Your task to perform on an android device: open app "File Manager" Image 0: 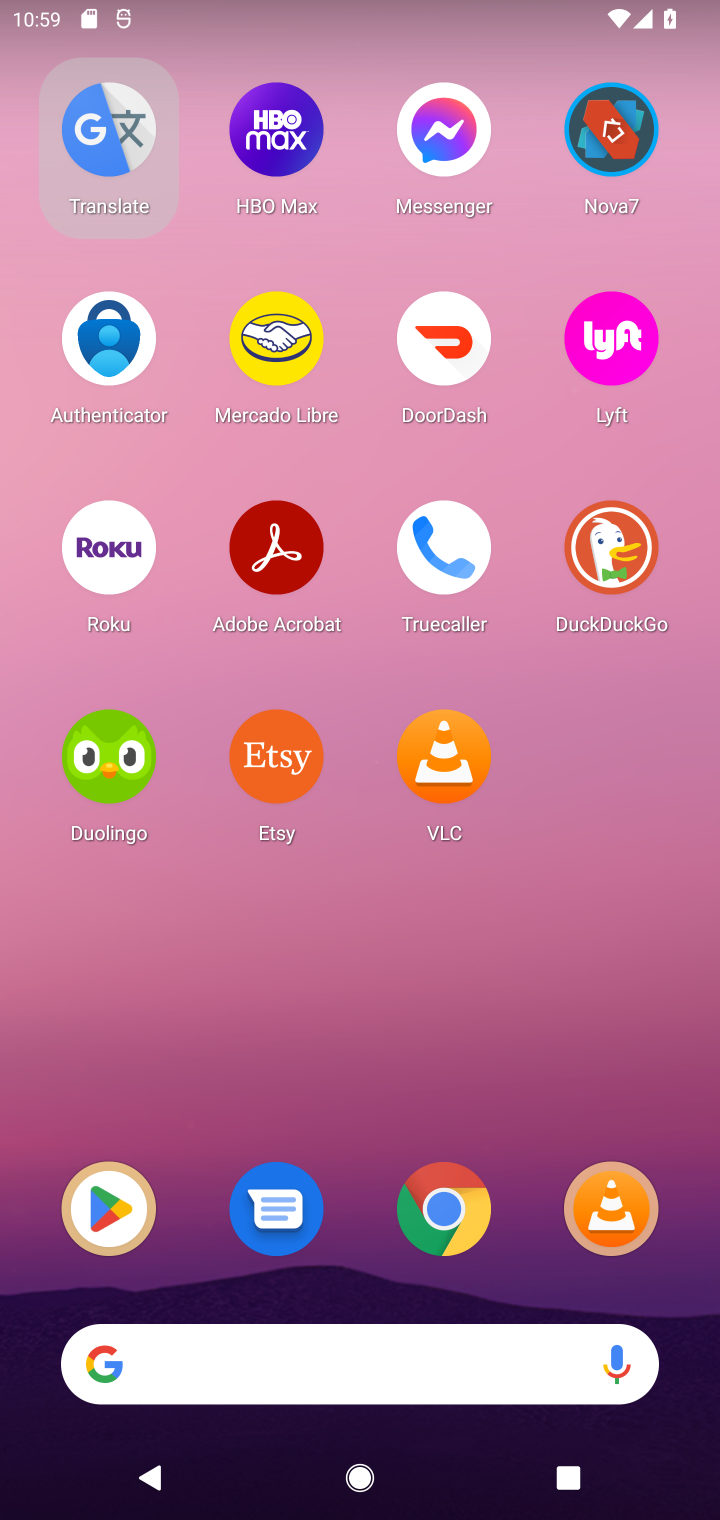
Step 0: drag from (587, 967) to (612, 30)
Your task to perform on an android device: open app "File Manager" Image 1: 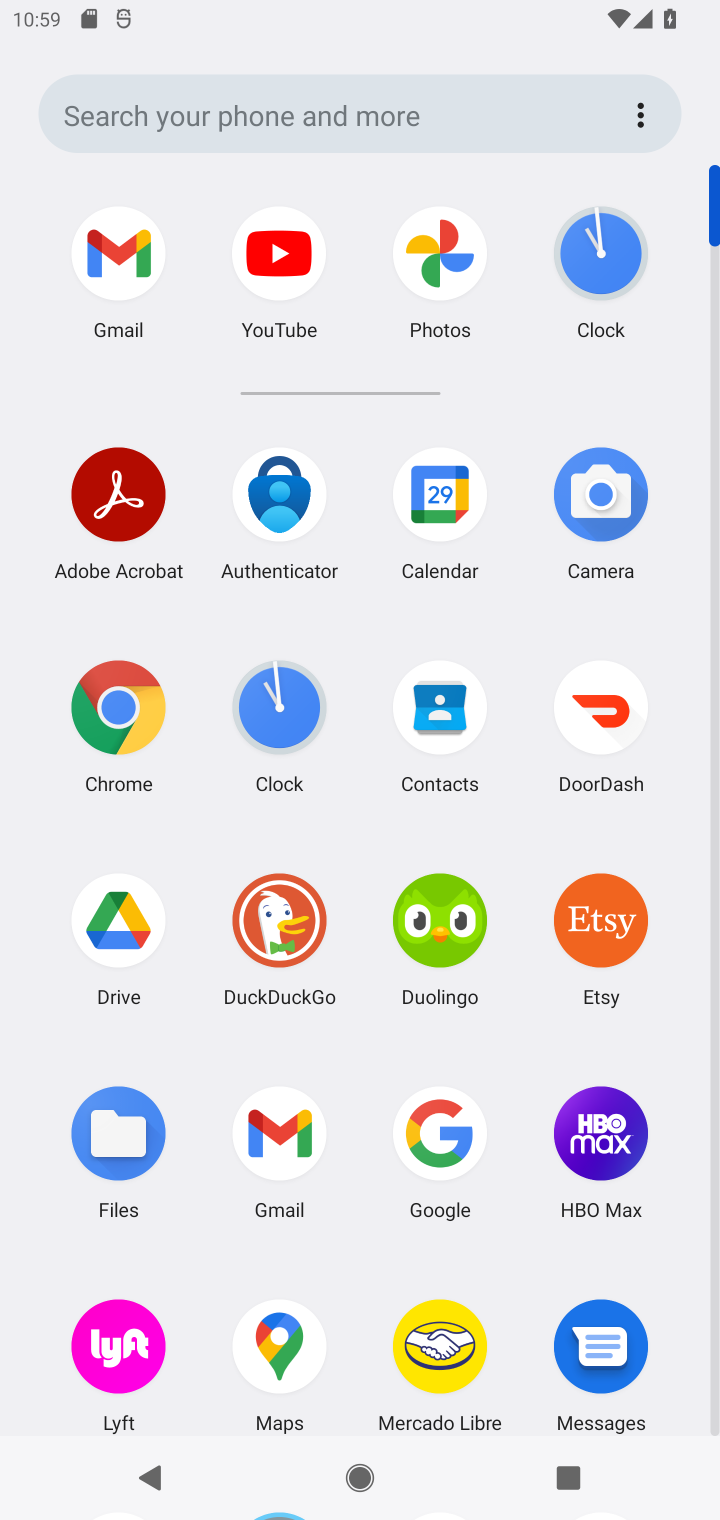
Step 1: drag from (368, 1258) to (433, 413)
Your task to perform on an android device: open app "File Manager" Image 2: 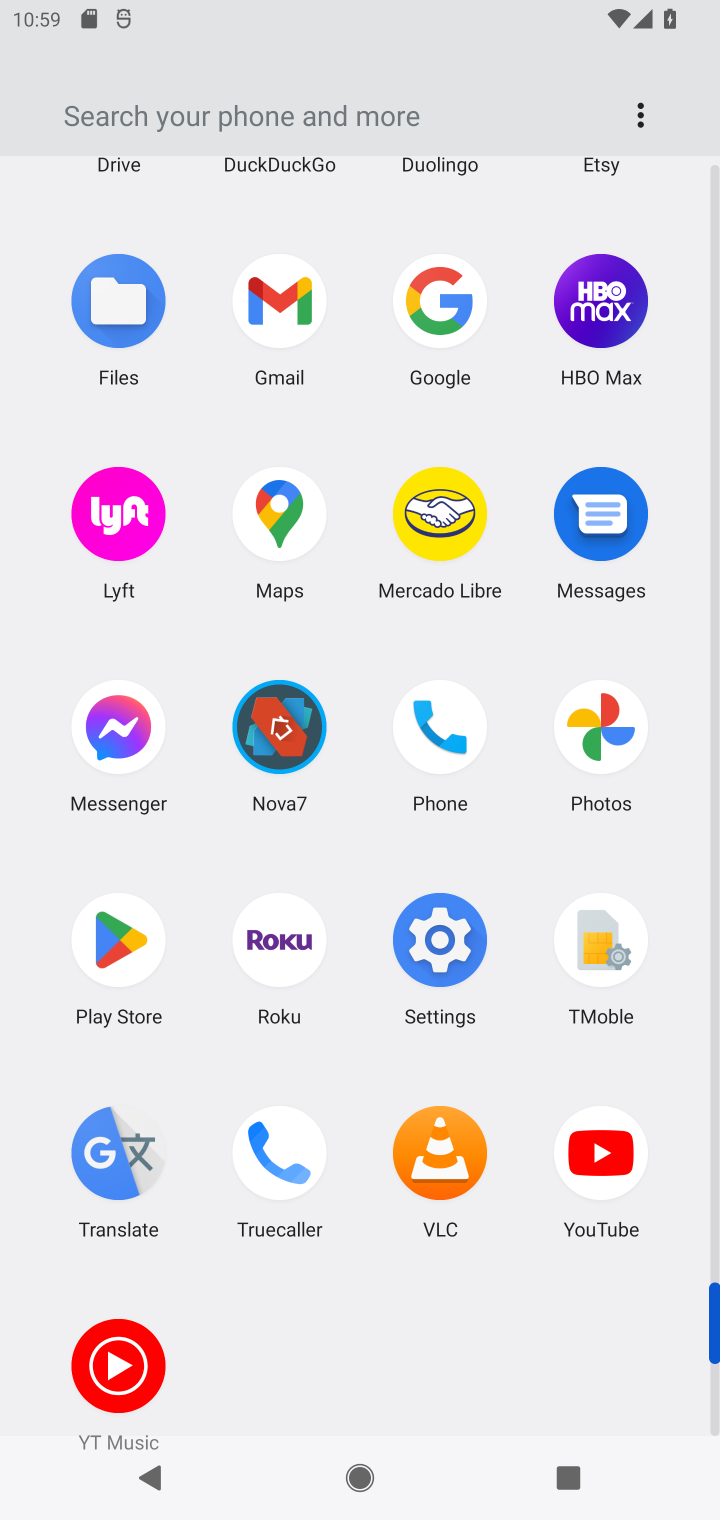
Step 2: click (100, 920)
Your task to perform on an android device: open app "File Manager" Image 3: 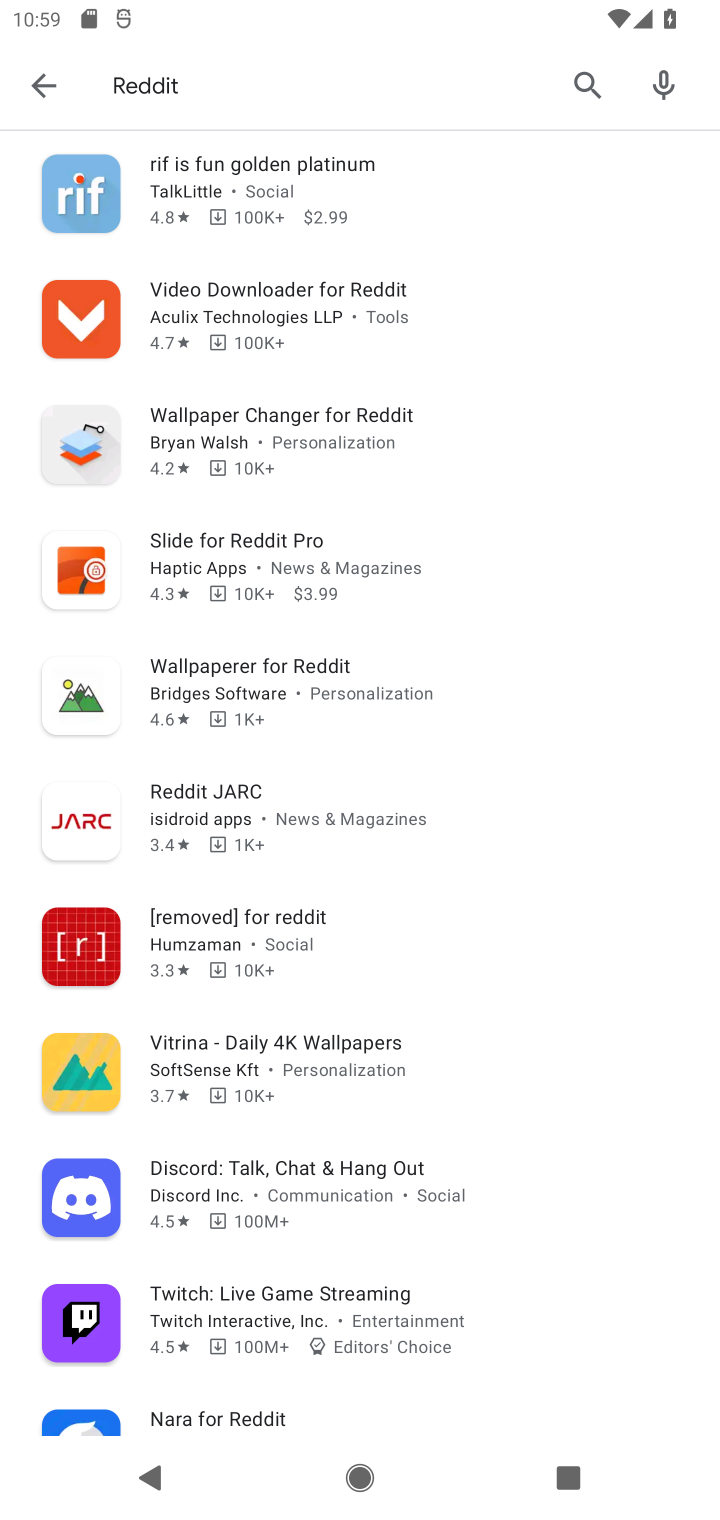
Step 3: click (340, 78)
Your task to perform on an android device: open app "File Manager" Image 4: 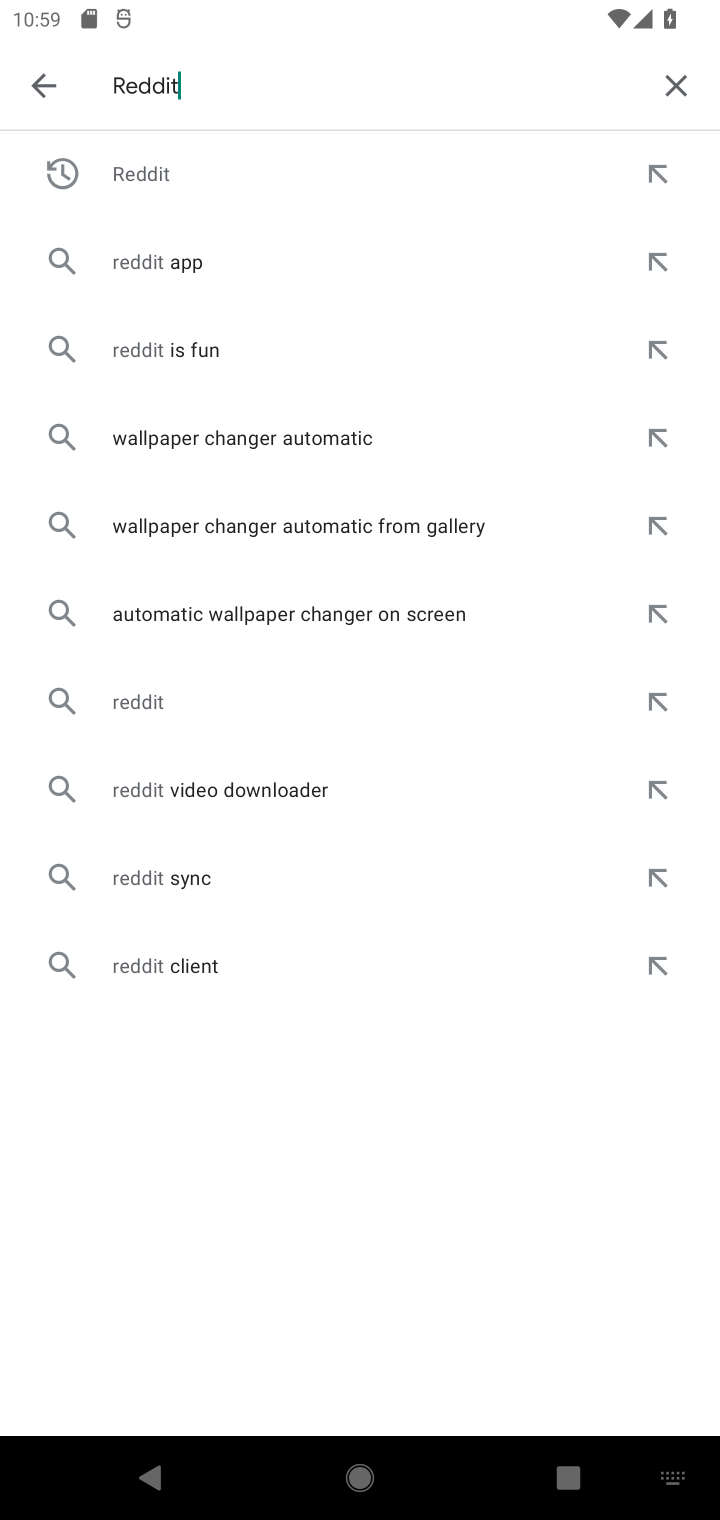
Step 4: click (672, 71)
Your task to perform on an android device: open app "File Manager" Image 5: 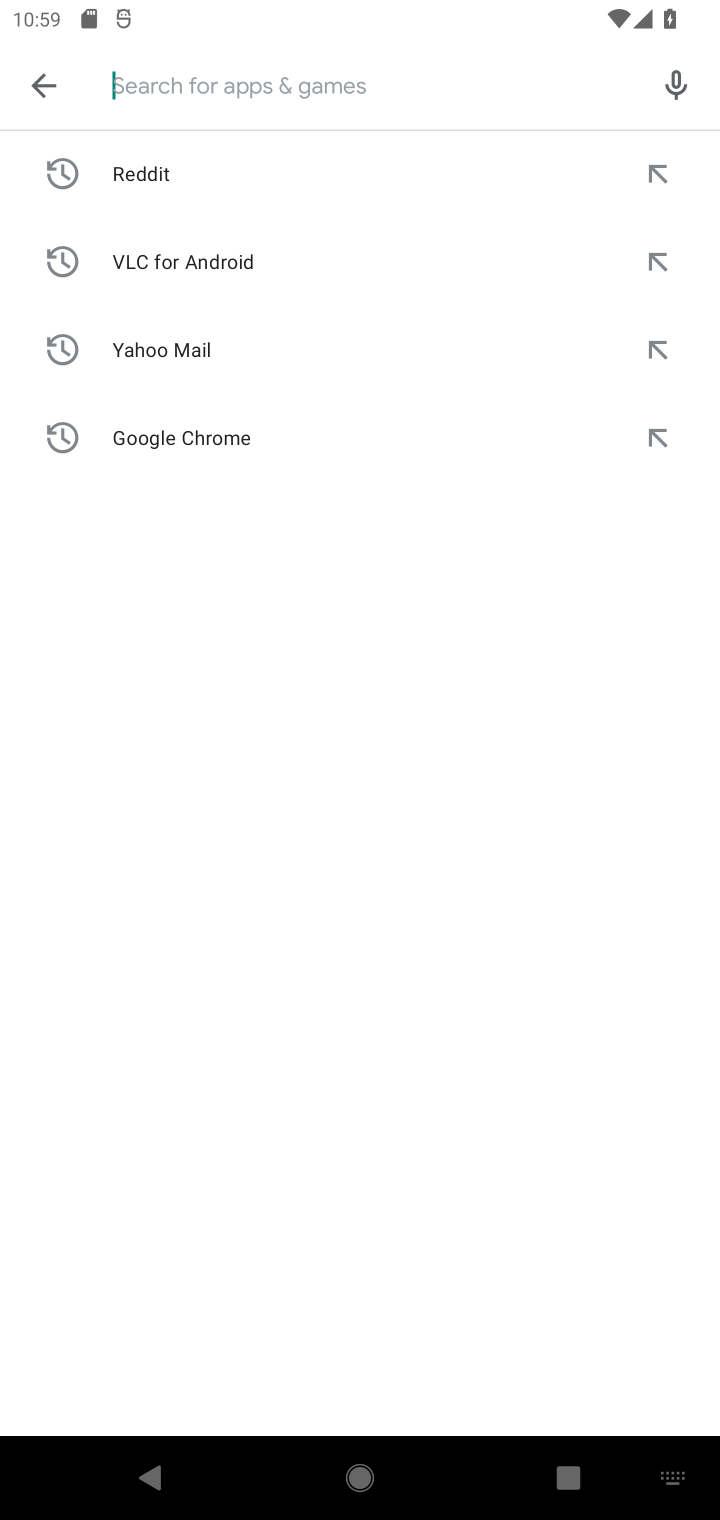
Step 5: type "File Manager"
Your task to perform on an android device: open app "File Manager" Image 6: 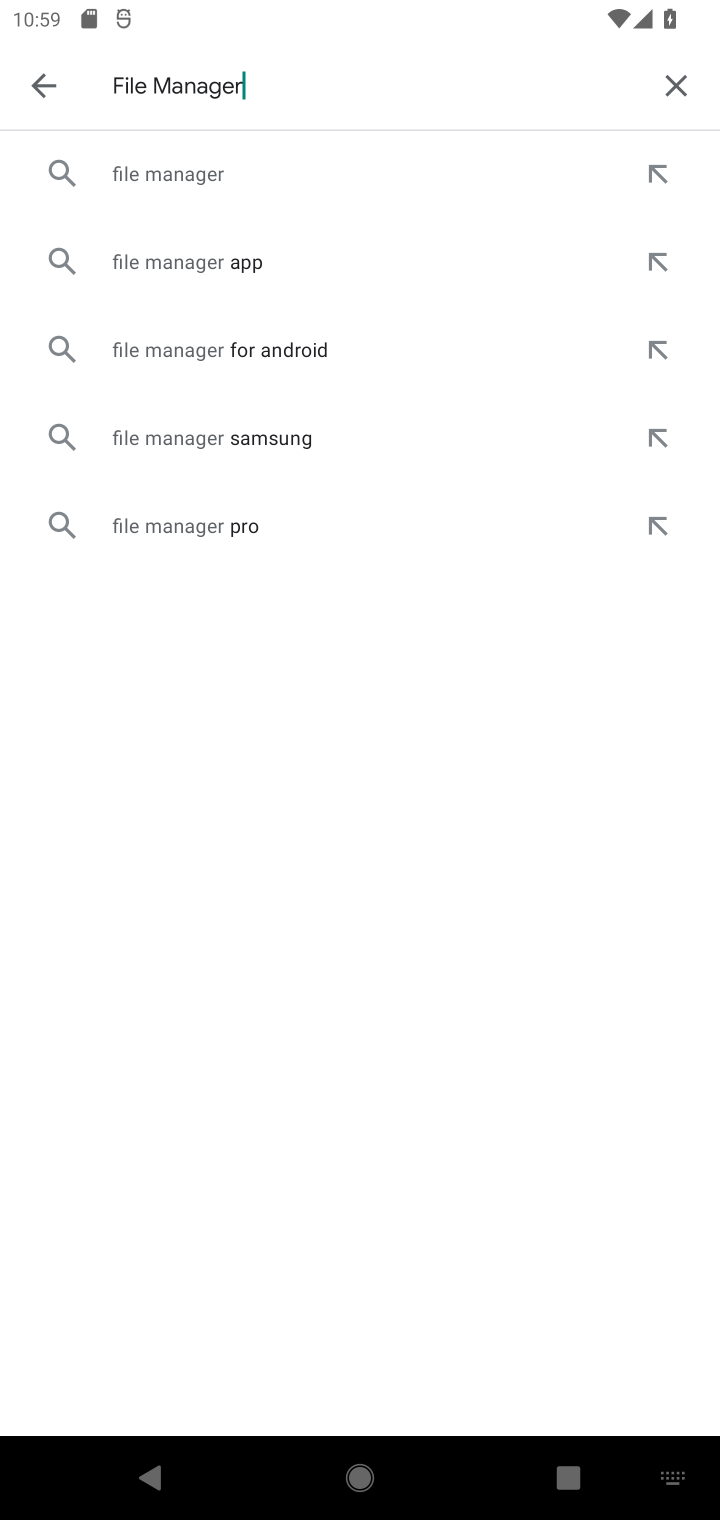
Step 6: press enter
Your task to perform on an android device: open app "File Manager" Image 7: 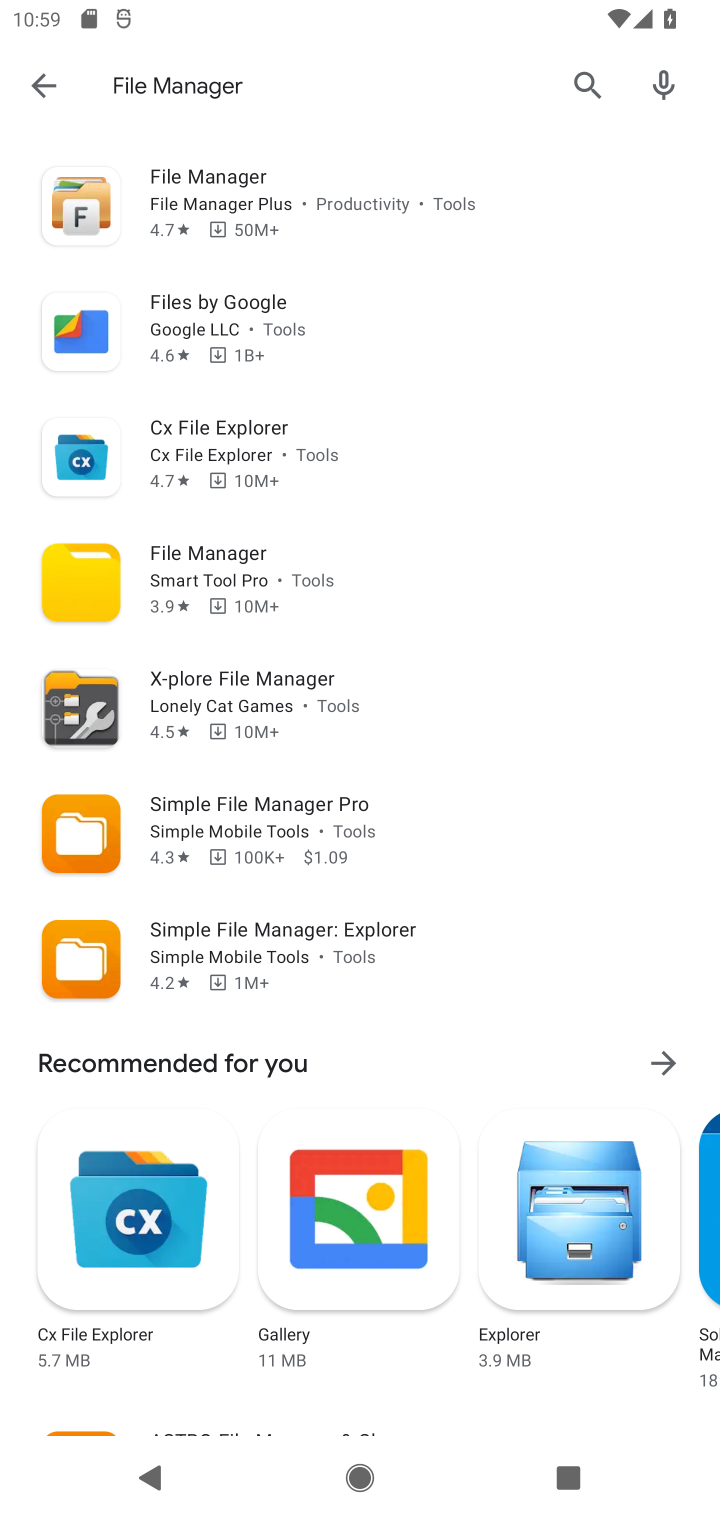
Step 7: click (170, 201)
Your task to perform on an android device: open app "File Manager" Image 8: 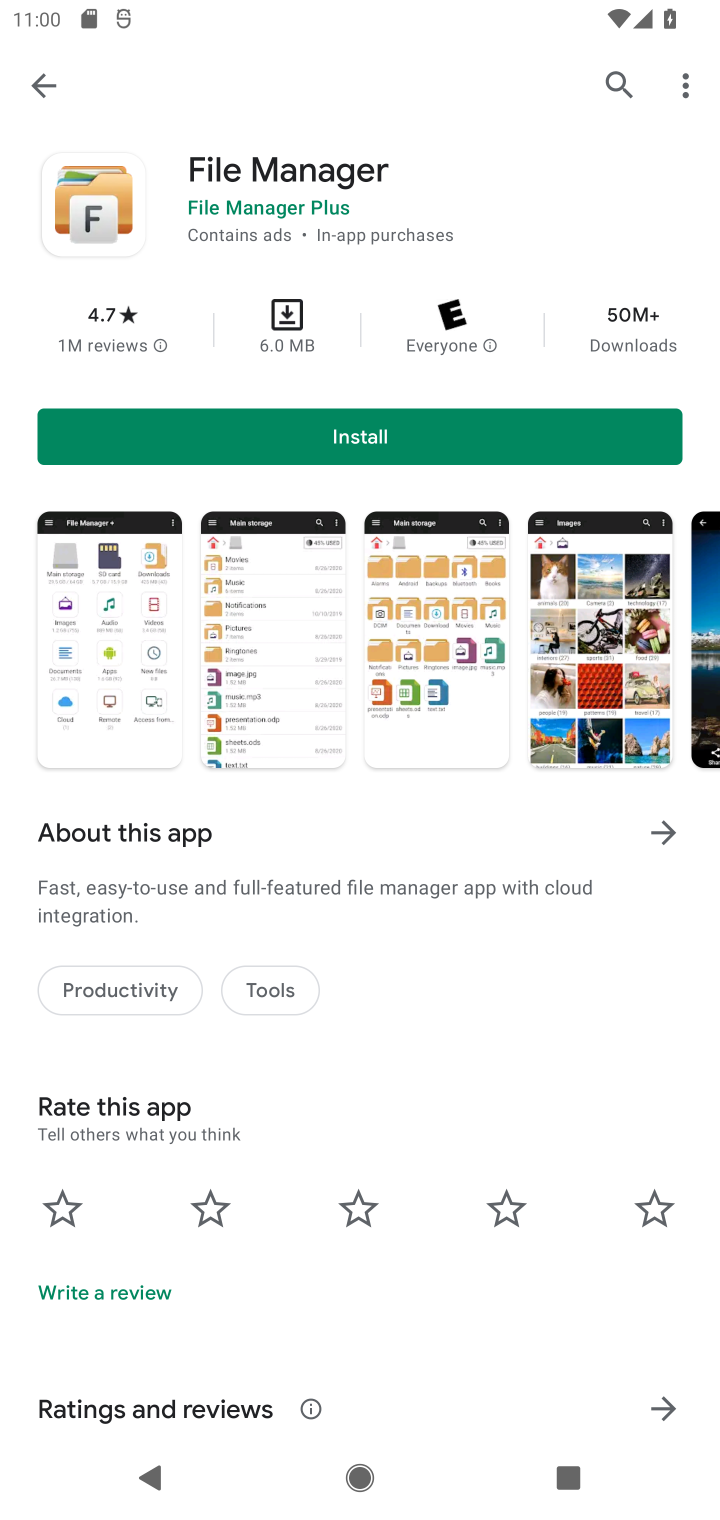
Step 8: task complete